Your task to perform on an android device: open app "Etsy: Buy & Sell Unique Items" (install if not already installed) Image 0: 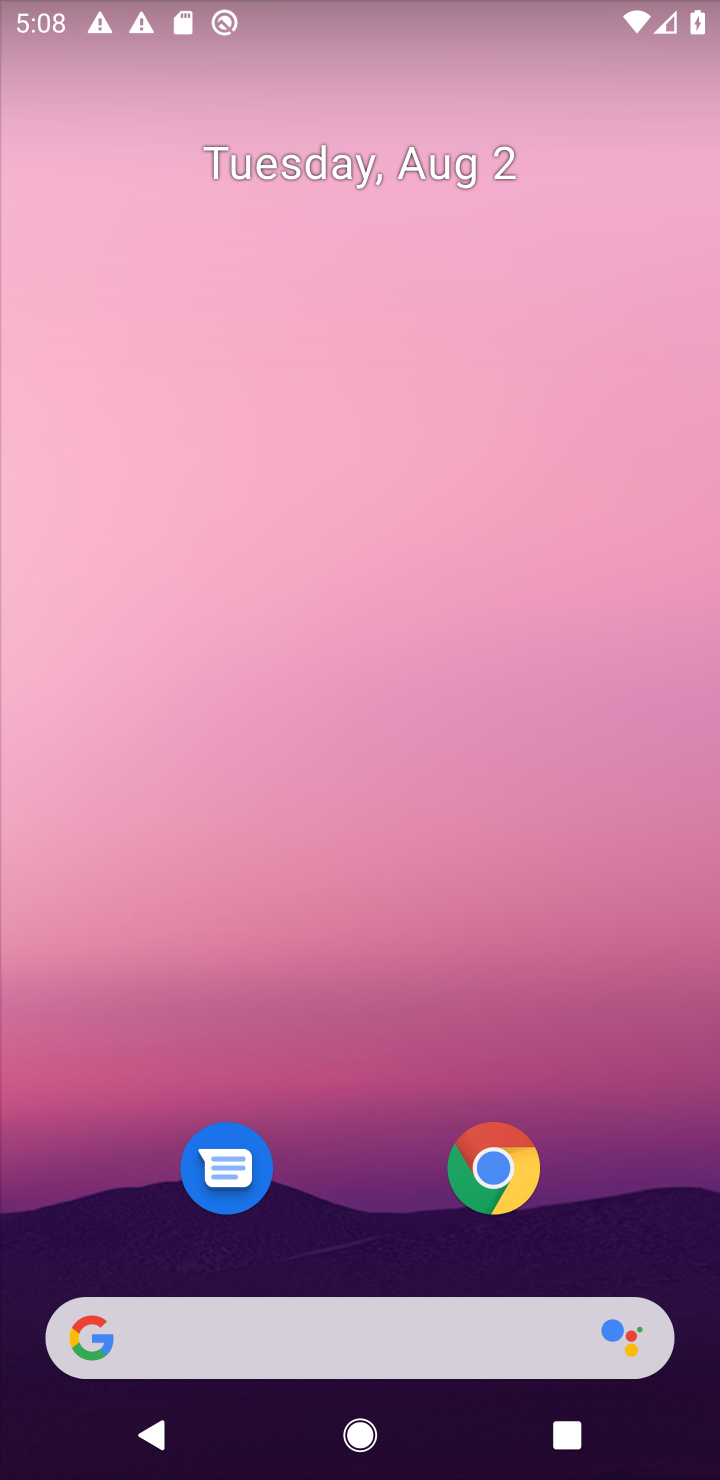
Step 0: drag from (316, 1228) to (455, 7)
Your task to perform on an android device: open app "Etsy: Buy & Sell Unique Items" (install if not already installed) Image 1: 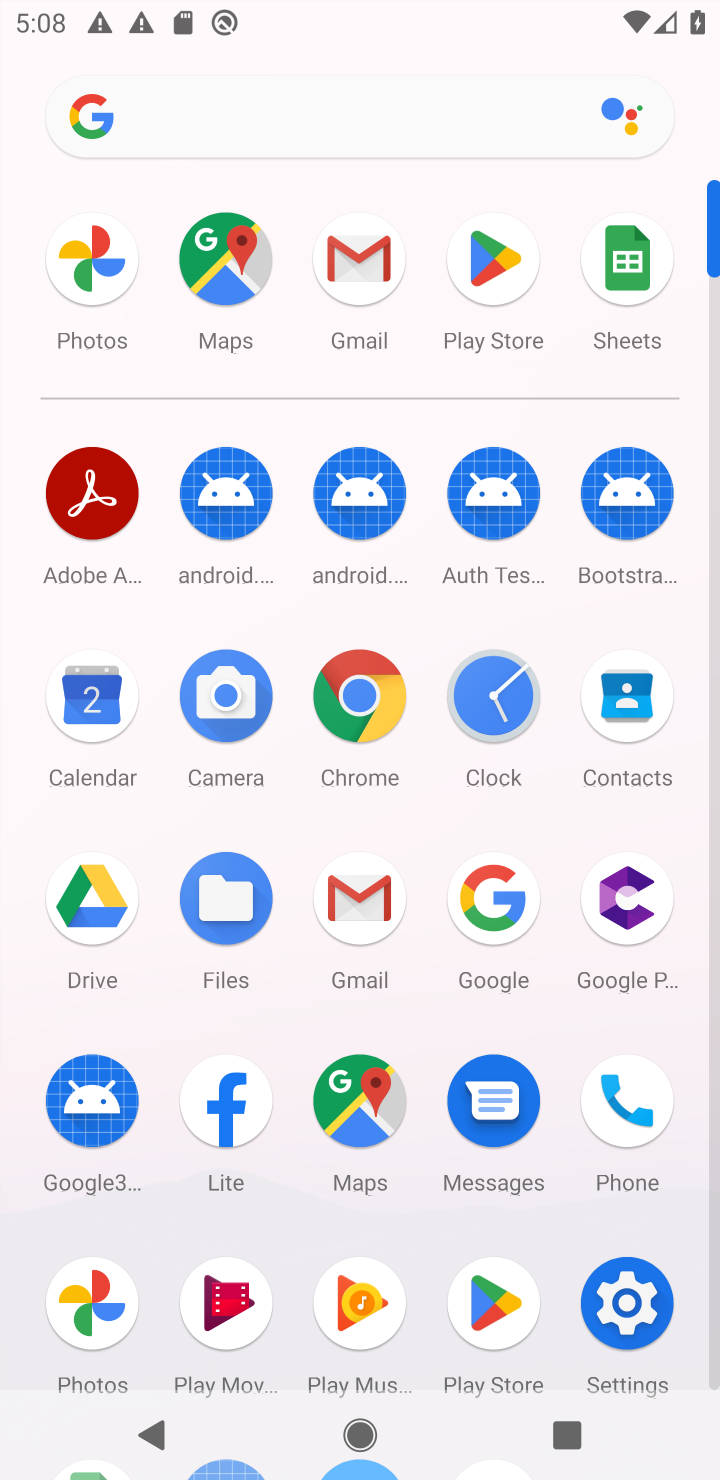
Step 1: click (499, 272)
Your task to perform on an android device: open app "Etsy: Buy & Sell Unique Items" (install if not already installed) Image 2: 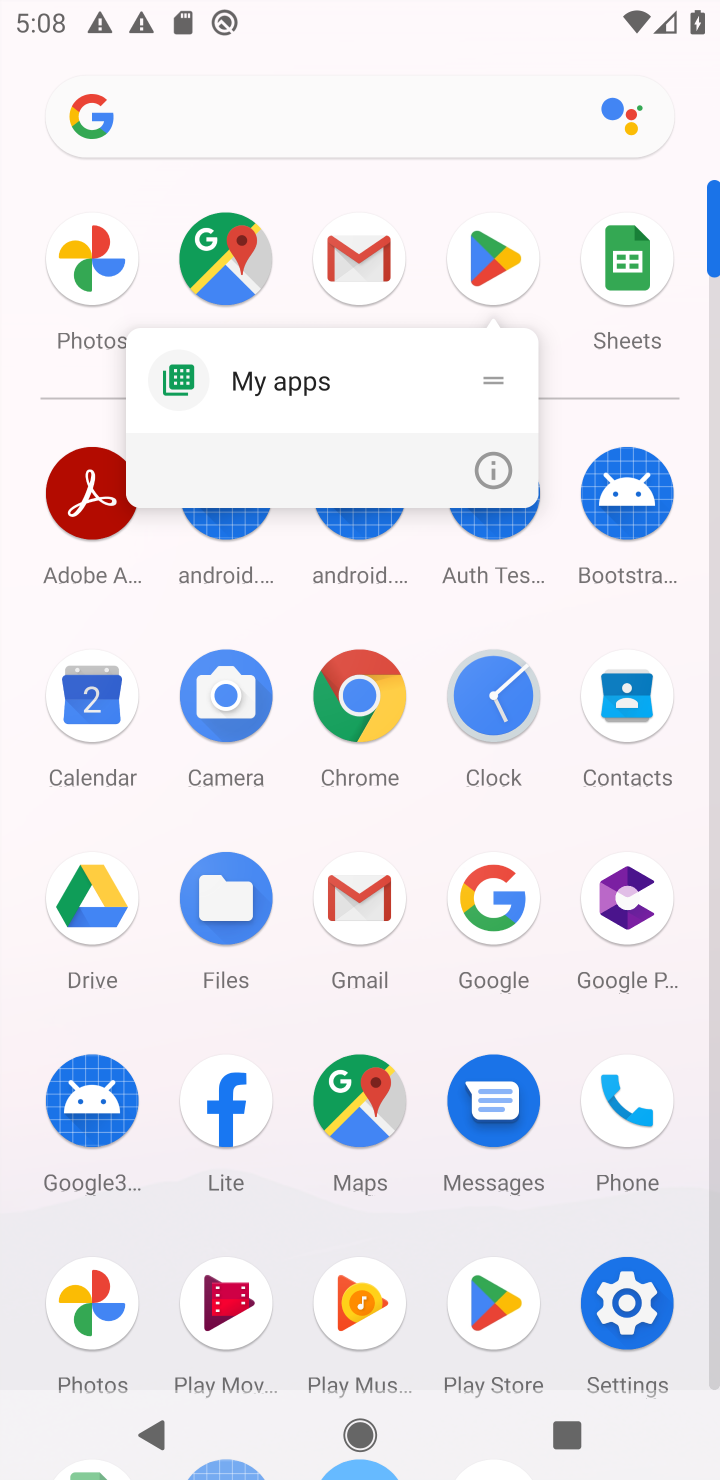
Step 2: click (518, 276)
Your task to perform on an android device: open app "Etsy: Buy & Sell Unique Items" (install if not already installed) Image 3: 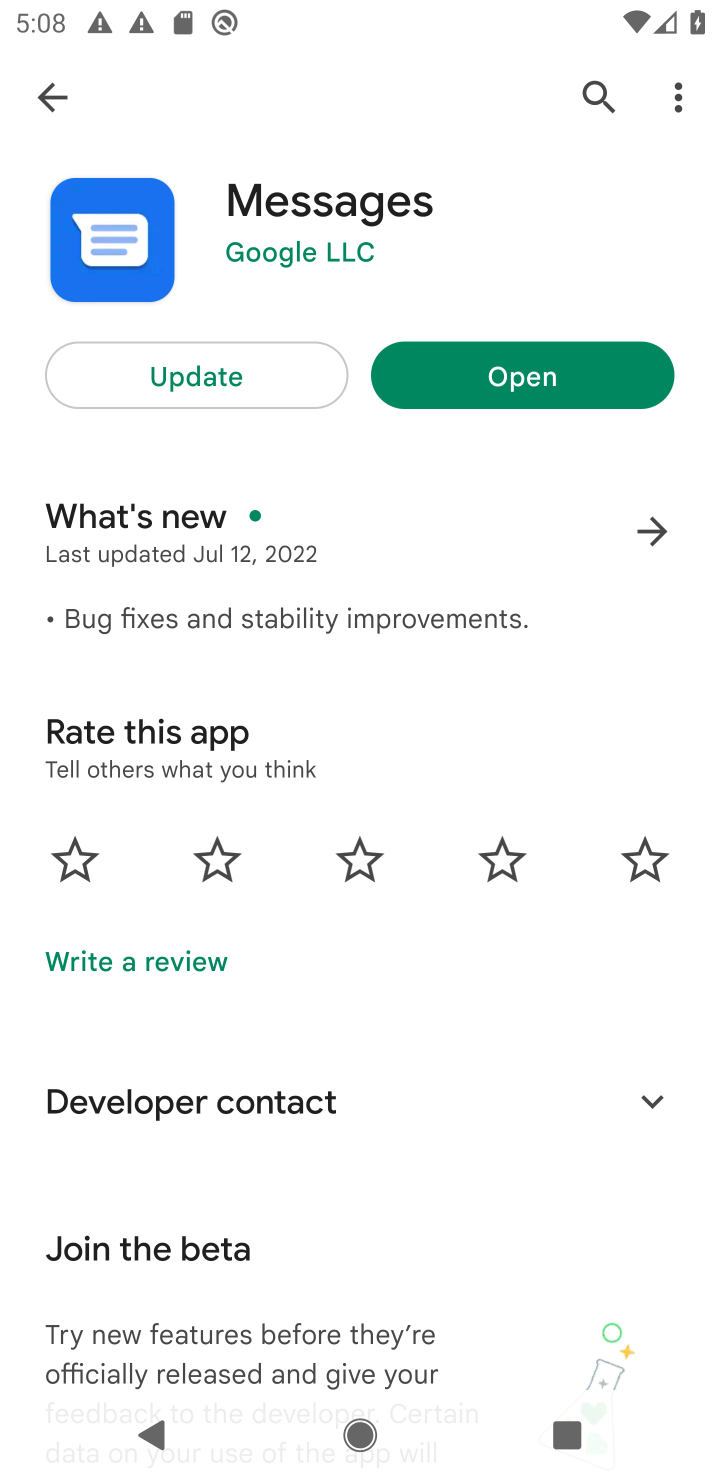
Step 3: click (55, 95)
Your task to perform on an android device: open app "Etsy: Buy & Sell Unique Items" (install if not already installed) Image 4: 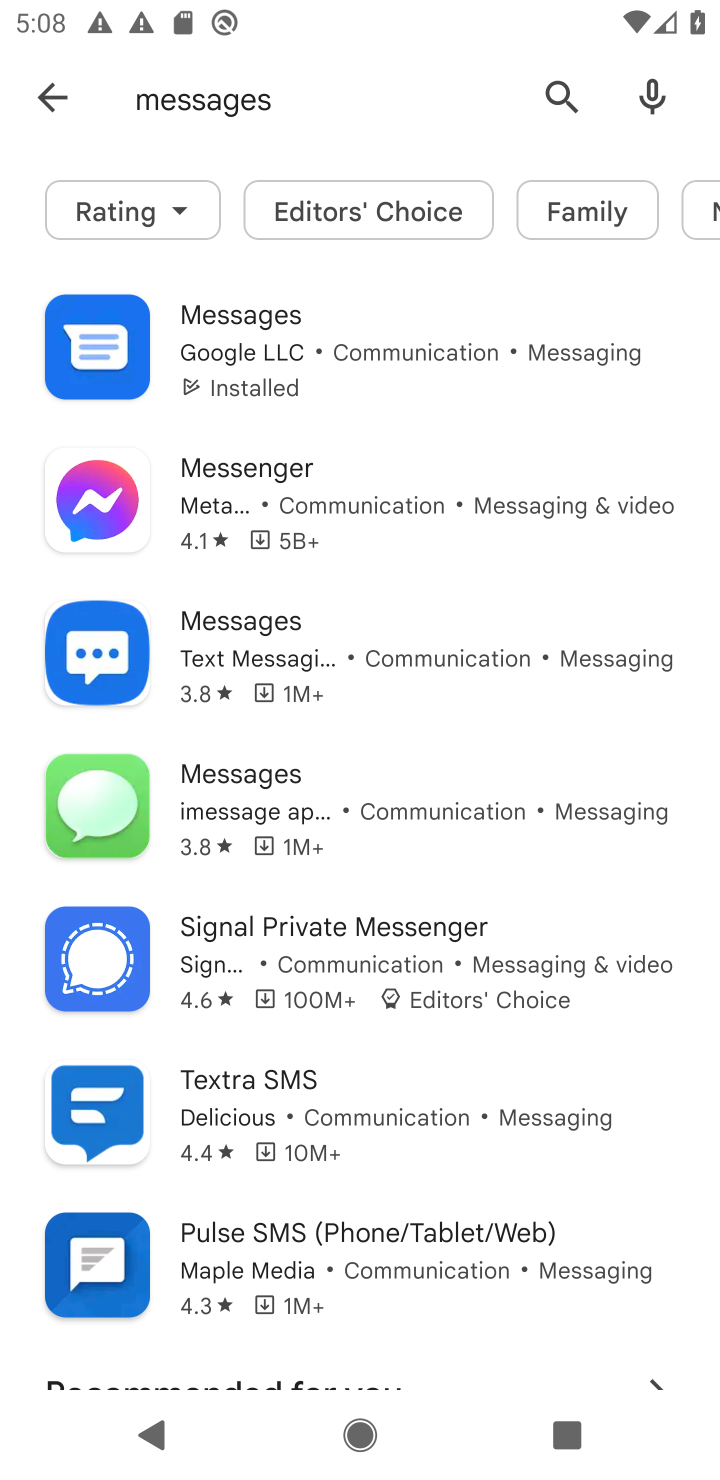
Step 4: click (230, 99)
Your task to perform on an android device: open app "Etsy: Buy & Sell Unique Items" (install if not already installed) Image 5: 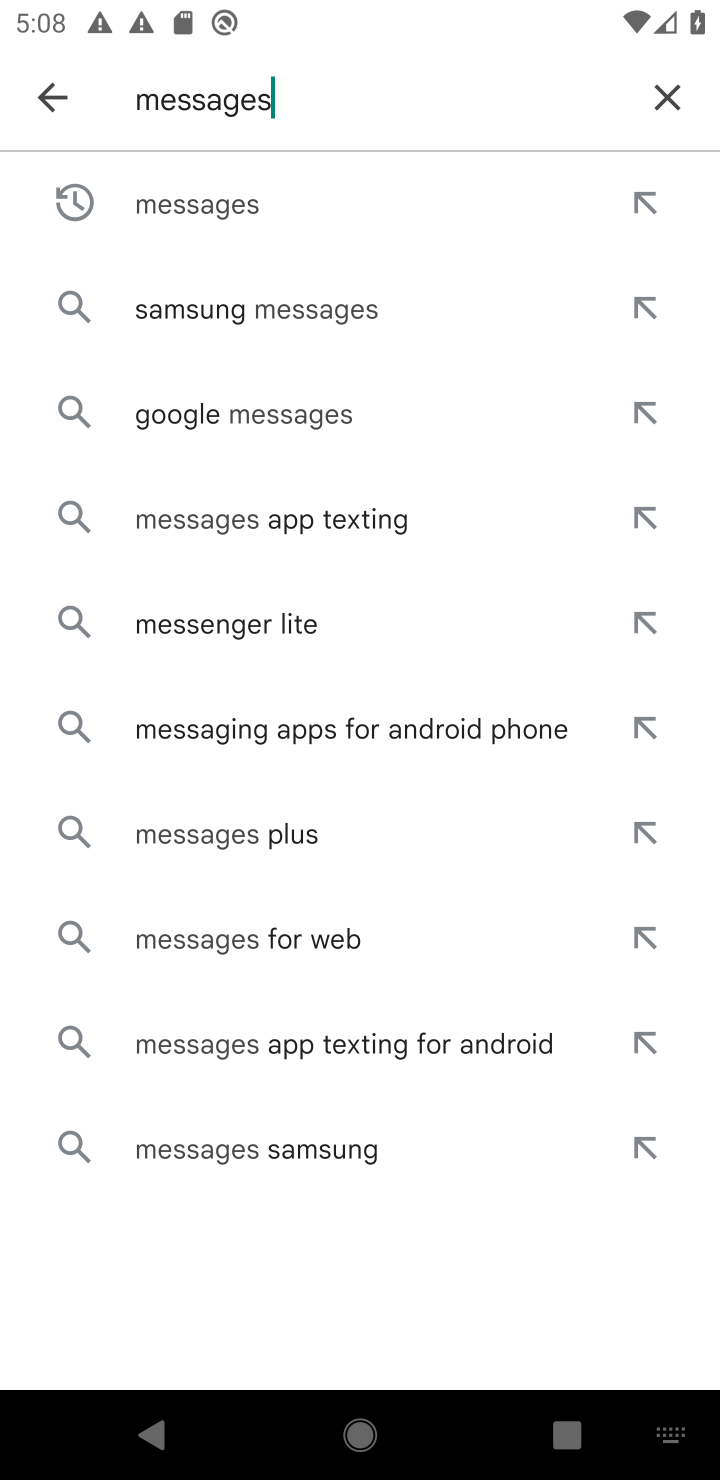
Step 5: click (654, 87)
Your task to perform on an android device: open app "Etsy: Buy & Sell Unique Items" (install if not already installed) Image 6: 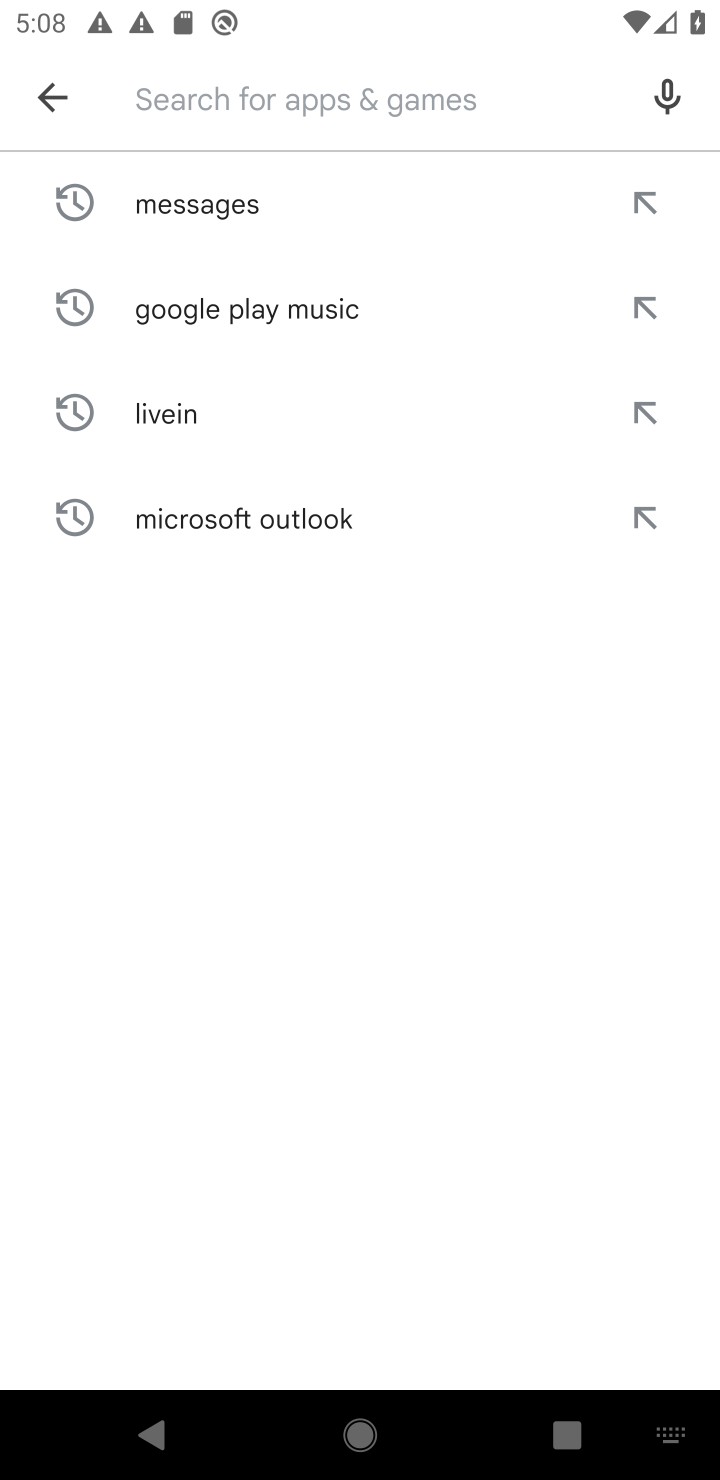
Step 6: type "etsy"
Your task to perform on an android device: open app "Etsy: Buy & Sell Unique Items" (install if not already installed) Image 7: 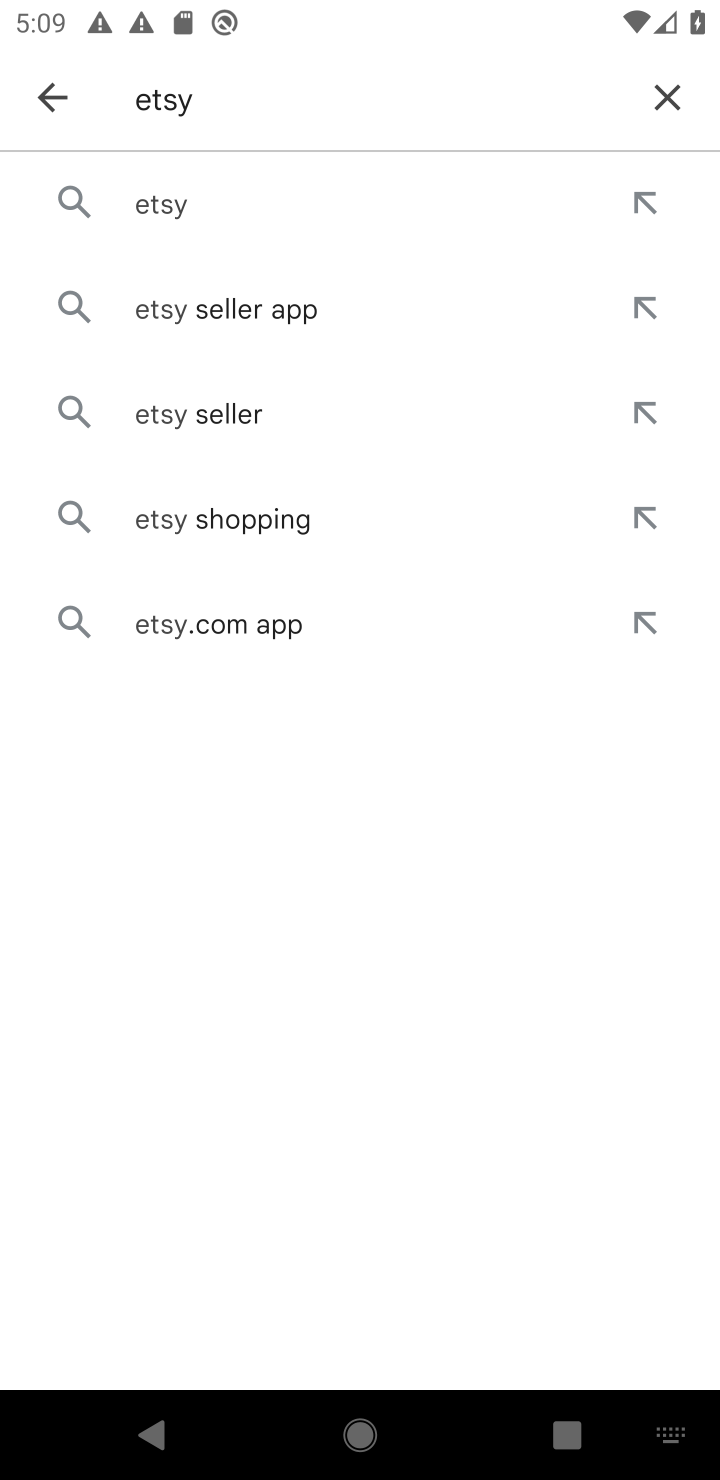
Step 7: click (169, 207)
Your task to perform on an android device: open app "Etsy: Buy & Sell Unique Items" (install if not already installed) Image 8: 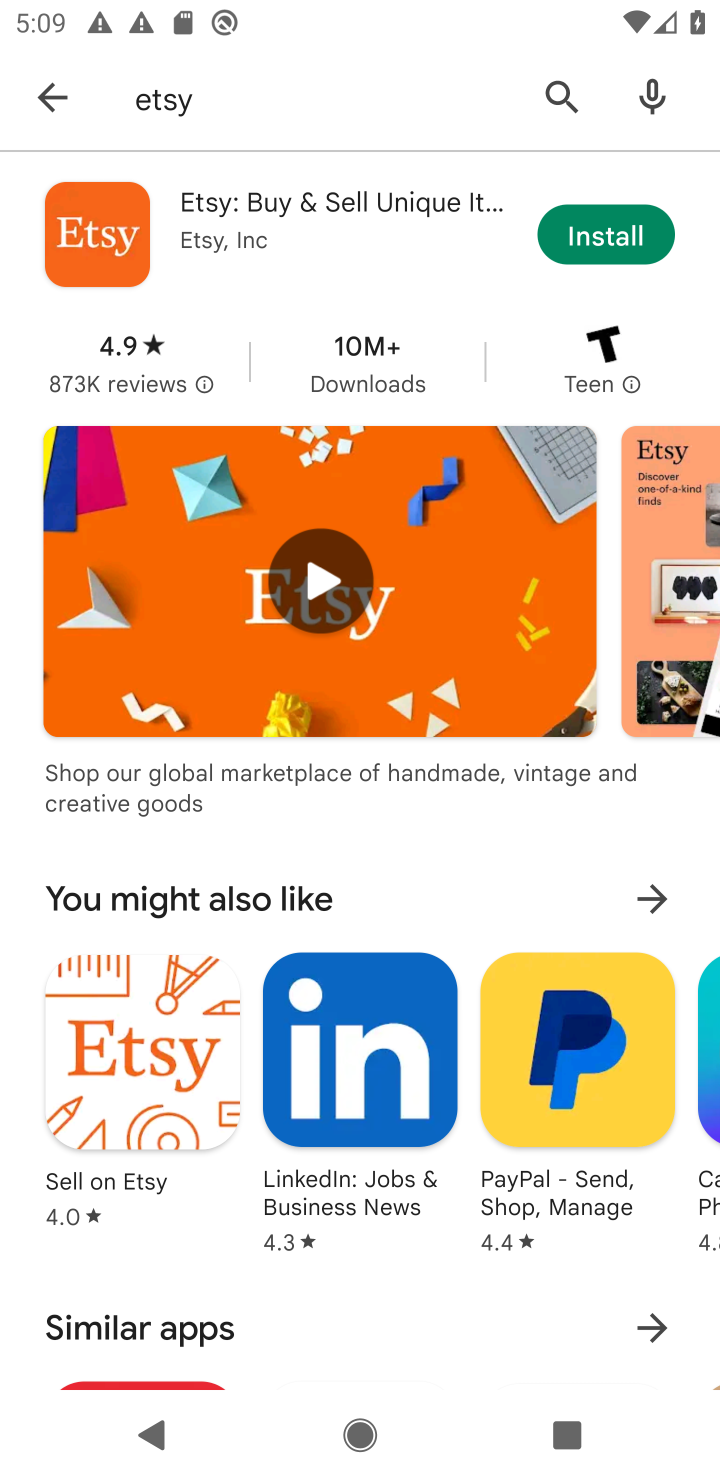
Step 8: click (624, 248)
Your task to perform on an android device: open app "Etsy: Buy & Sell Unique Items" (install if not already installed) Image 9: 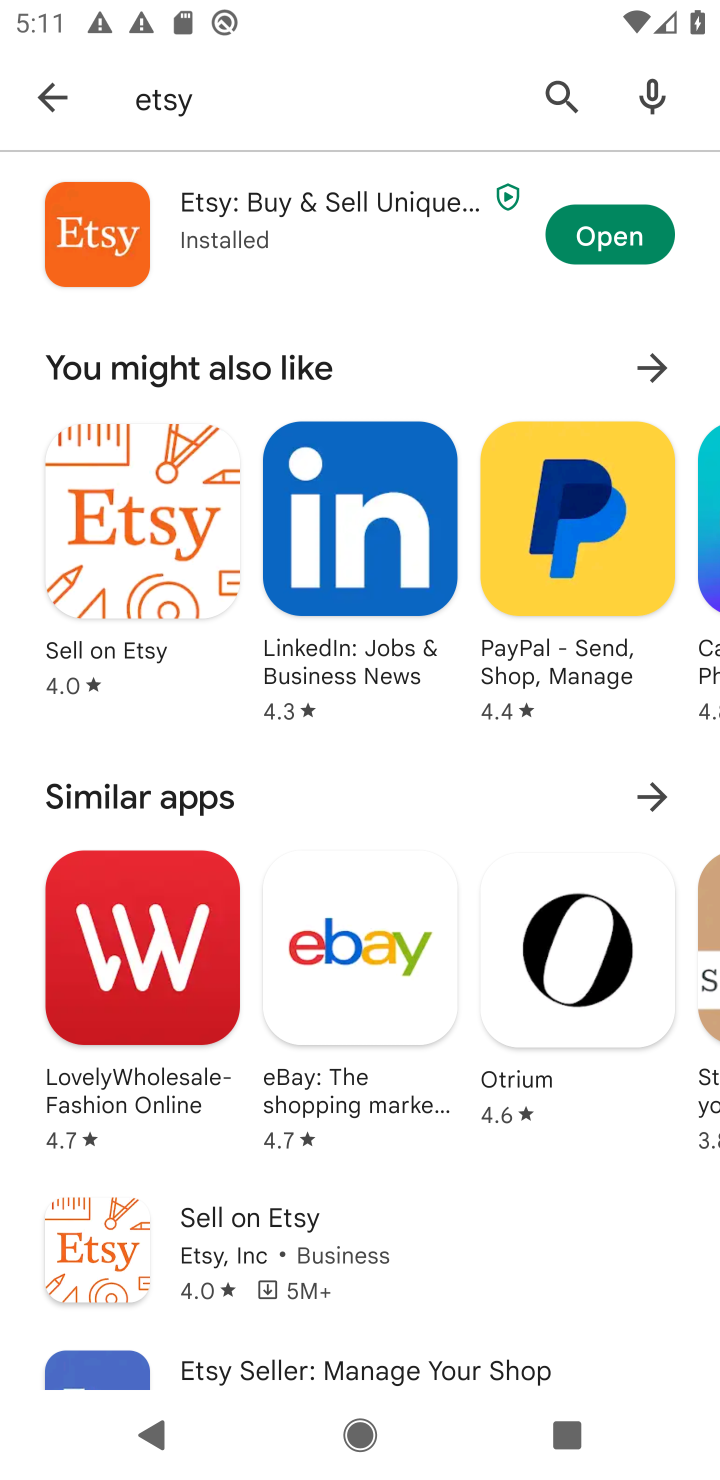
Step 9: click (636, 246)
Your task to perform on an android device: open app "Etsy: Buy & Sell Unique Items" (install if not already installed) Image 10: 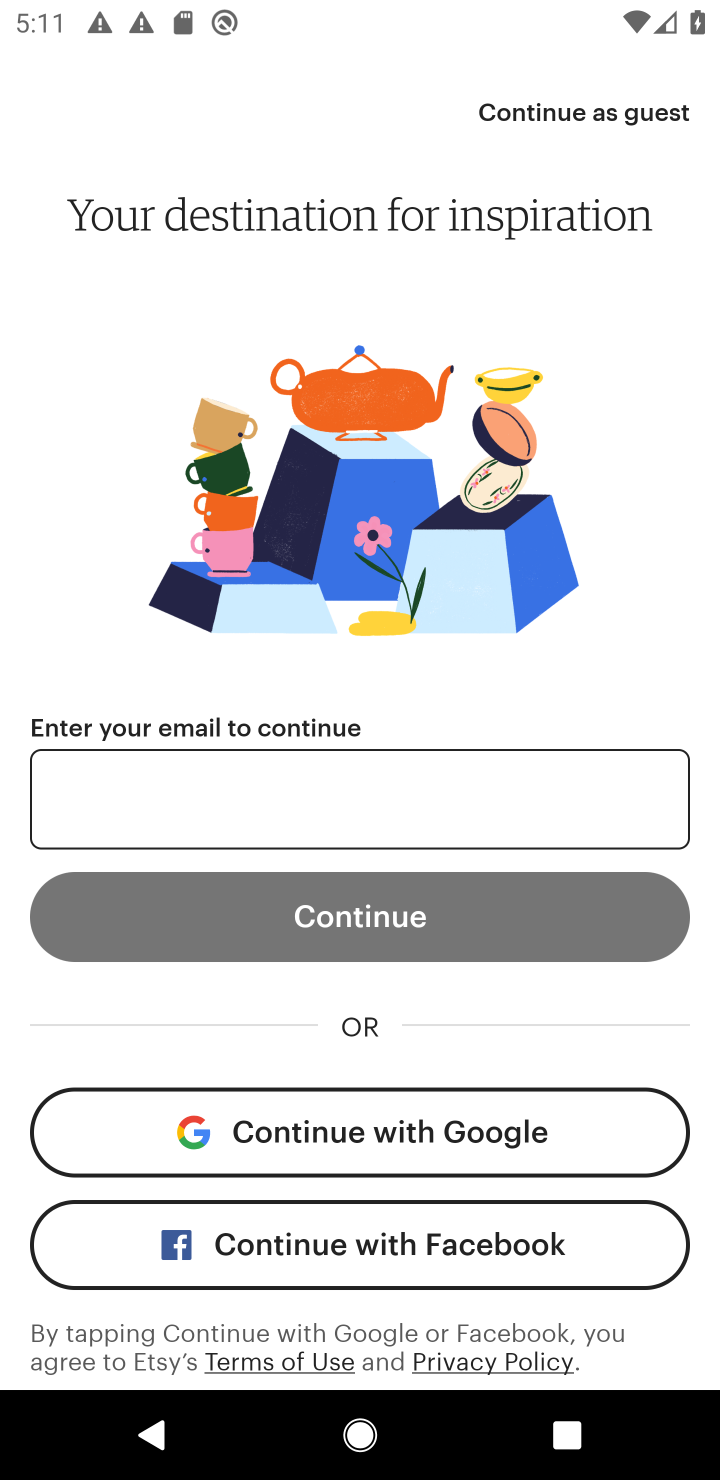
Step 10: click (451, 1143)
Your task to perform on an android device: open app "Etsy: Buy & Sell Unique Items" (install if not already installed) Image 11: 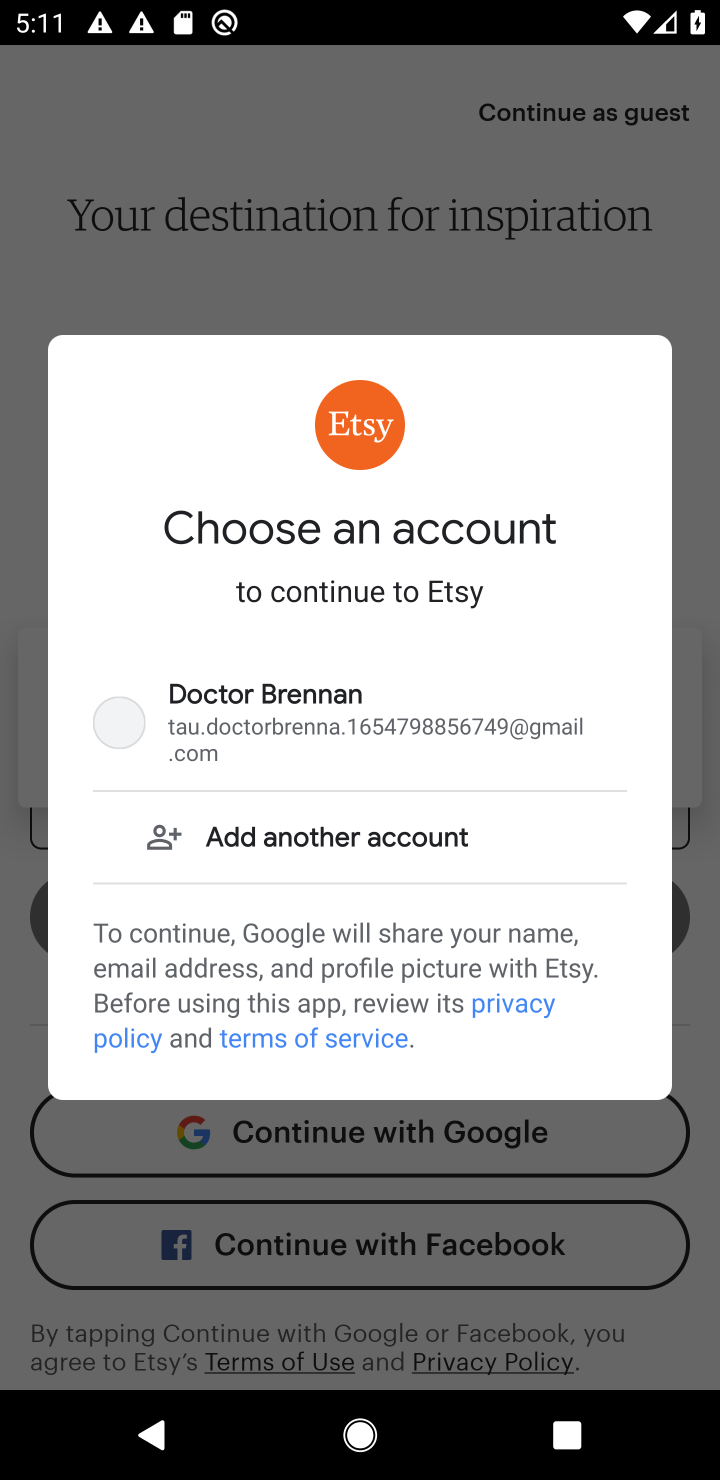
Step 11: click (293, 693)
Your task to perform on an android device: open app "Etsy: Buy & Sell Unique Items" (install if not already installed) Image 12: 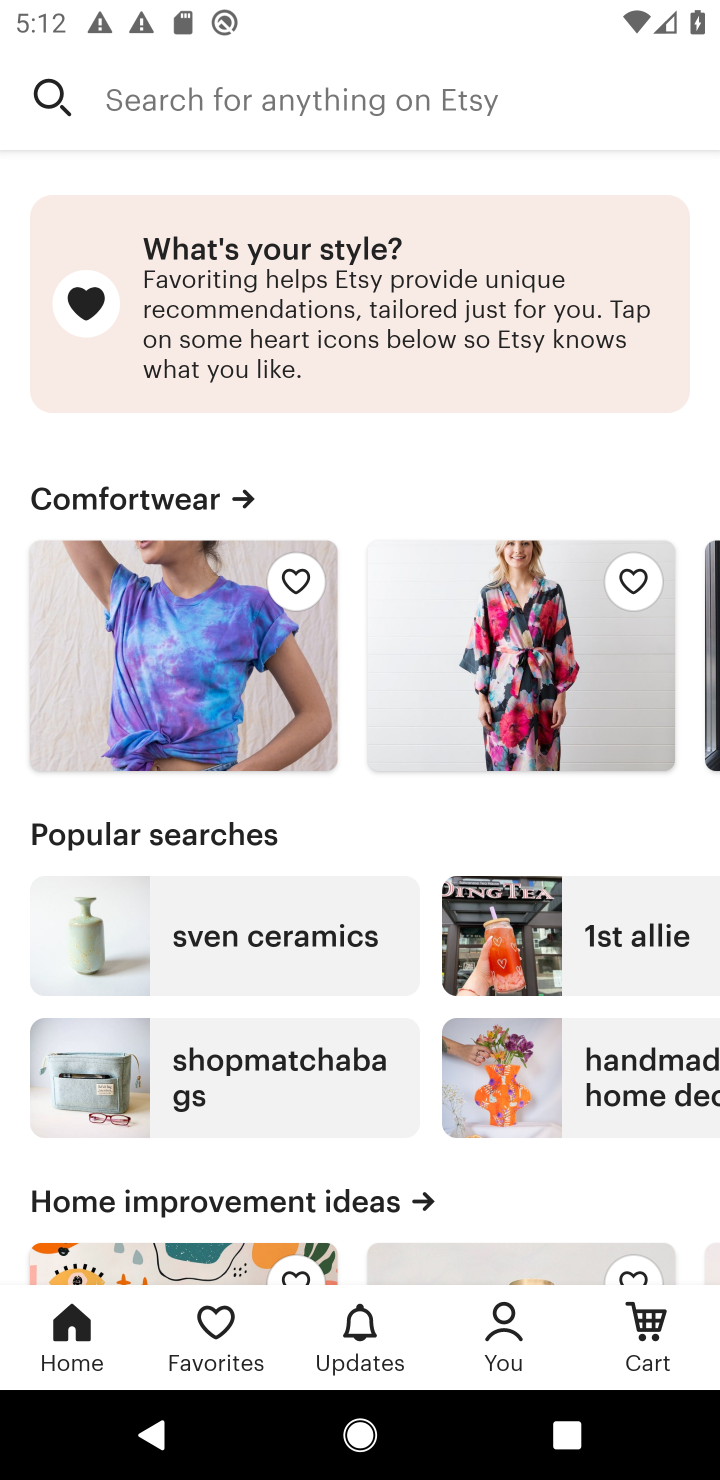
Step 12: task complete